Your task to perform on an android device: Open the stopwatch Image 0: 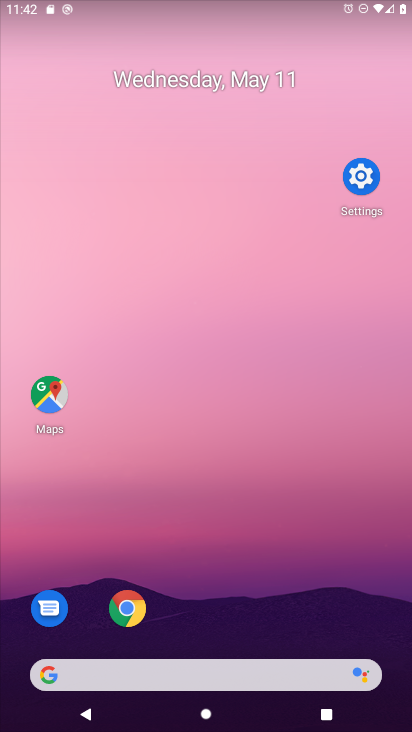
Step 0: drag from (337, 598) to (218, 206)
Your task to perform on an android device: Open the stopwatch Image 1: 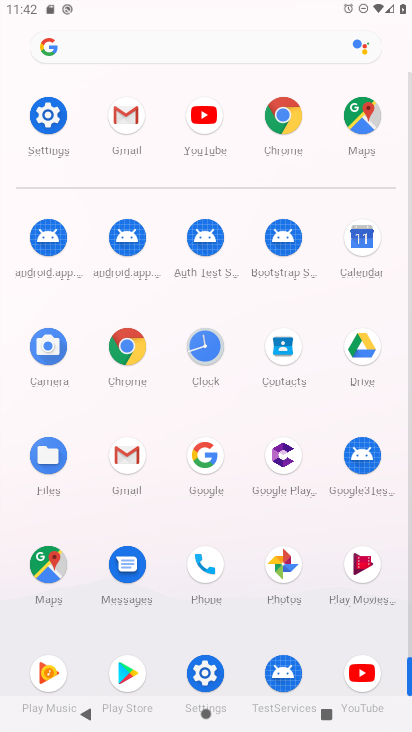
Step 1: click (197, 355)
Your task to perform on an android device: Open the stopwatch Image 2: 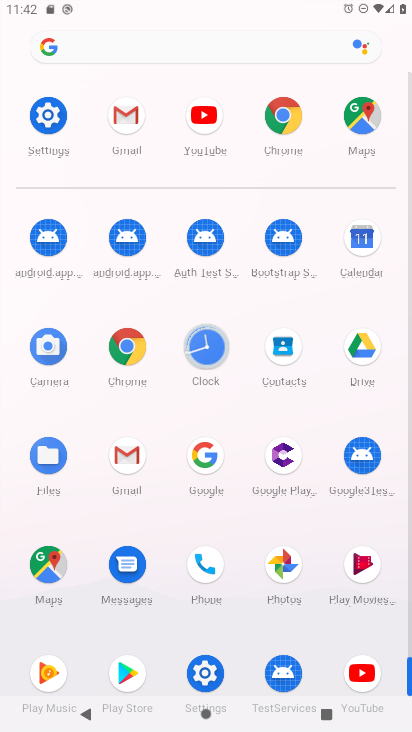
Step 2: click (197, 355)
Your task to perform on an android device: Open the stopwatch Image 3: 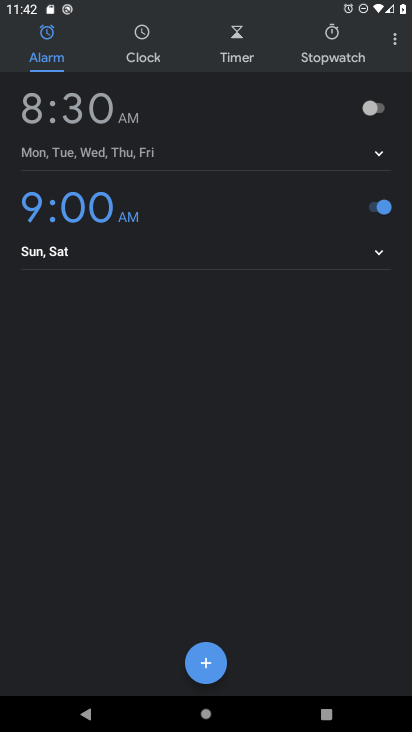
Step 3: click (332, 50)
Your task to perform on an android device: Open the stopwatch Image 4: 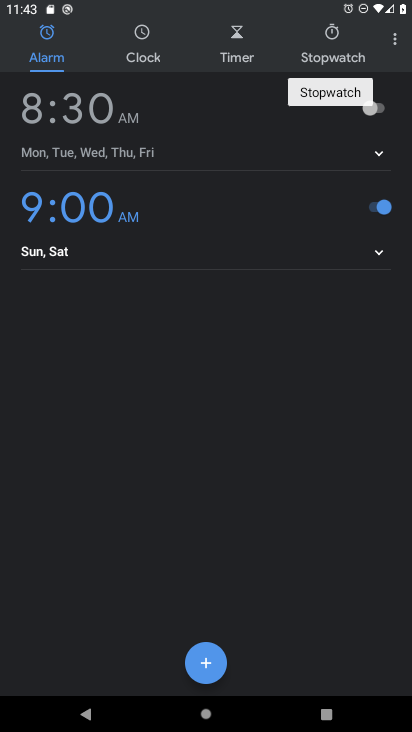
Step 4: click (332, 50)
Your task to perform on an android device: Open the stopwatch Image 5: 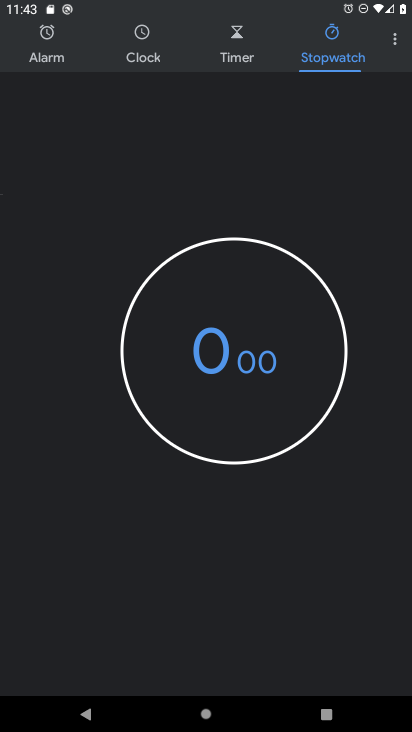
Step 5: click (328, 56)
Your task to perform on an android device: Open the stopwatch Image 6: 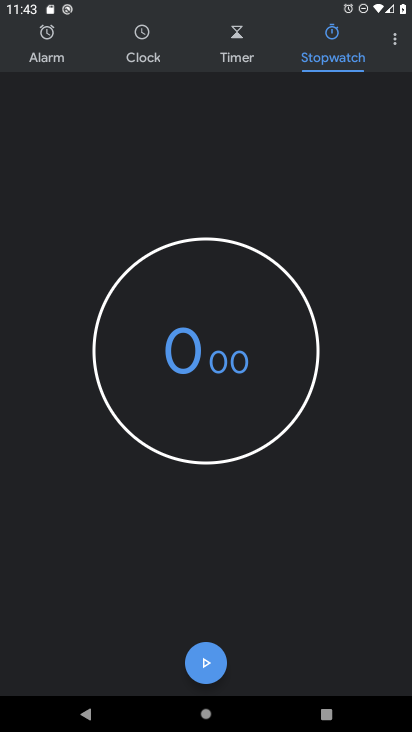
Step 6: task complete